Your task to perform on an android device: turn off javascript in the chrome app Image 0: 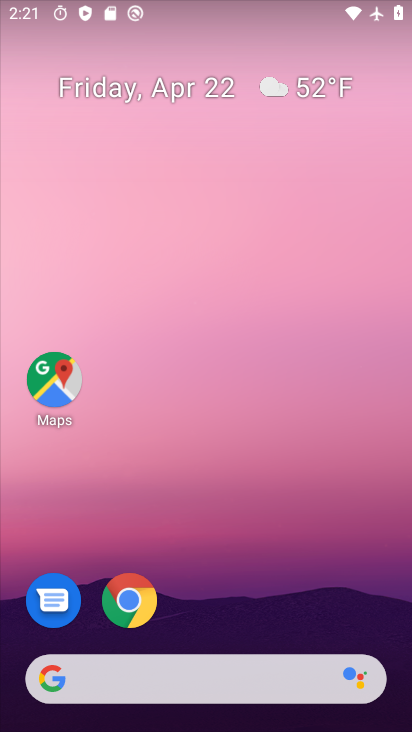
Step 0: click (123, 609)
Your task to perform on an android device: turn off javascript in the chrome app Image 1: 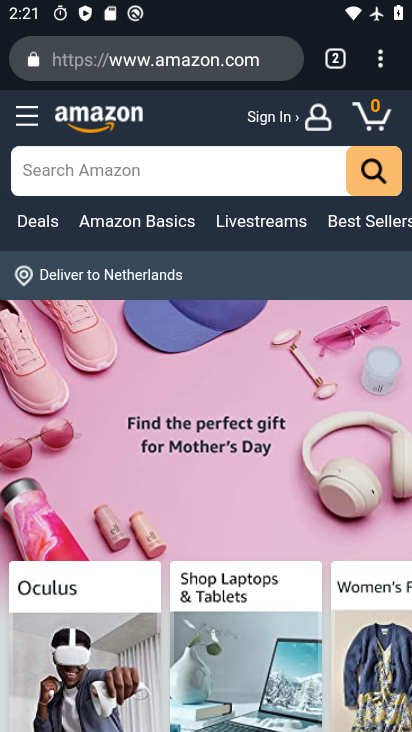
Step 1: drag from (377, 56) to (241, 612)
Your task to perform on an android device: turn off javascript in the chrome app Image 2: 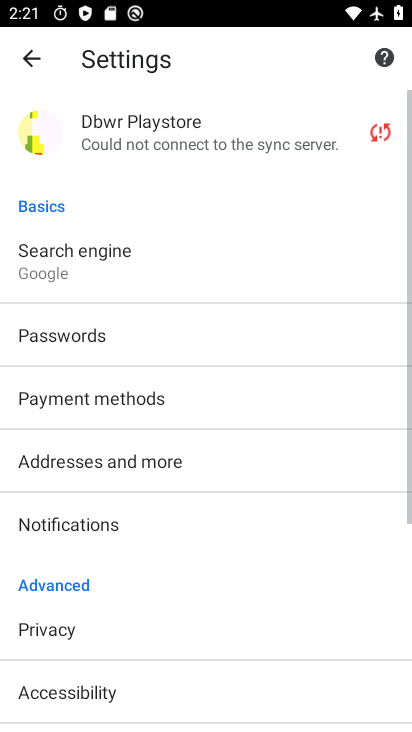
Step 2: drag from (202, 685) to (218, 335)
Your task to perform on an android device: turn off javascript in the chrome app Image 3: 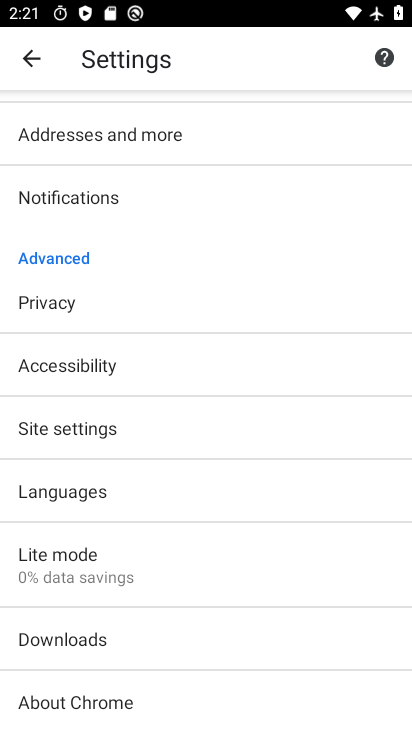
Step 3: click (90, 421)
Your task to perform on an android device: turn off javascript in the chrome app Image 4: 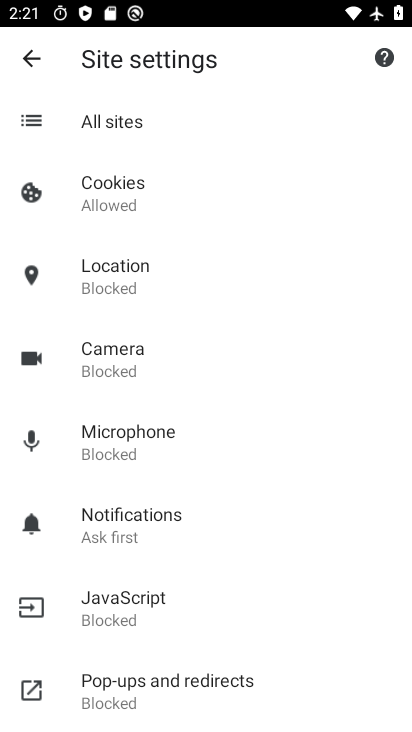
Step 4: click (110, 609)
Your task to perform on an android device: turn off javascript in the chrome app Image 5: 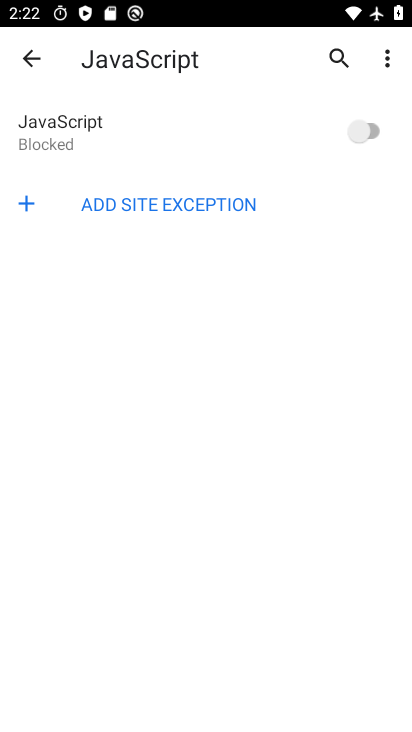
Step 5: task complete